Your task to perform on an android device: Find coffee shops on Maps Image 0: 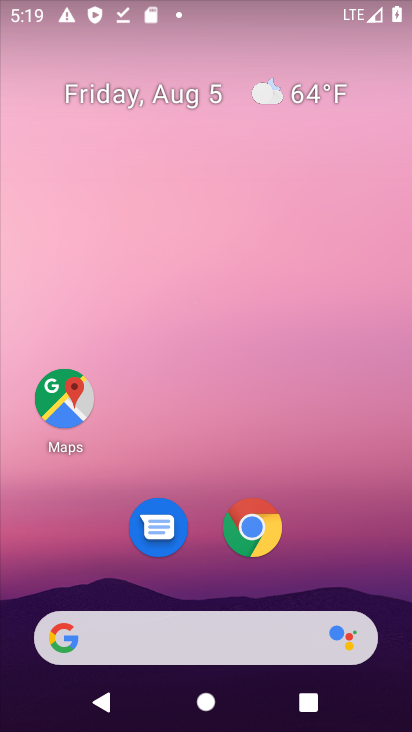
Step 0: drag from (196, 602) to (197, 130)
Your task to perform on an android device: Find coffee shops on Maps Image 1: 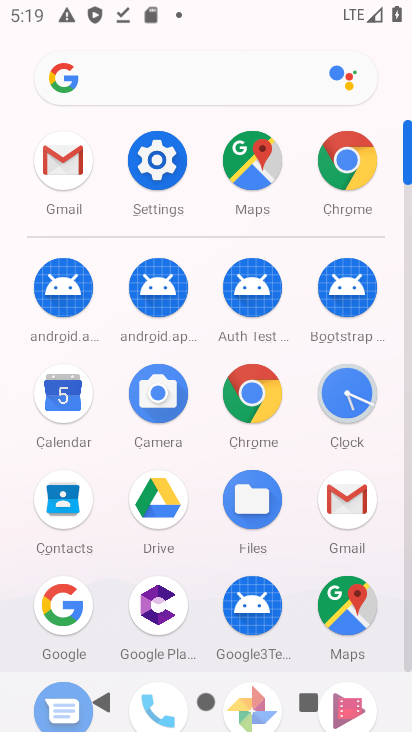
Step 1: click (337, 626)
Your task to perform on an android device: Find coffee shops on Maps Image 2: 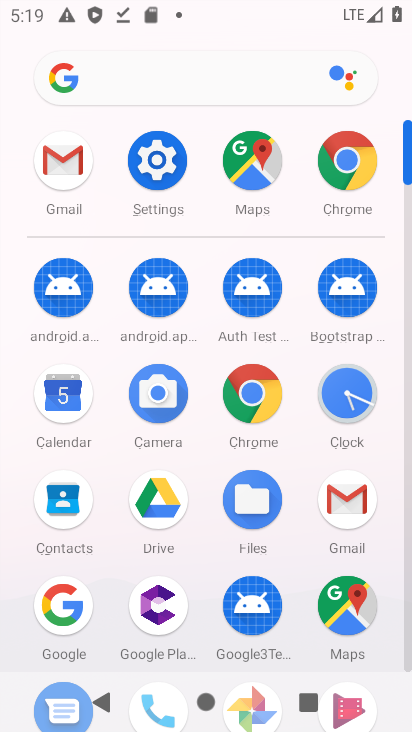
Step 2: click (337, 624)
Your task to perform on an android device: Find coffee shops on Maps Image 3: 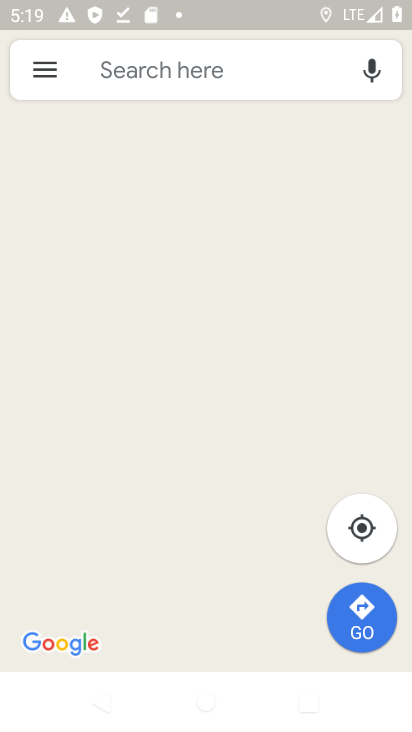
Step 3: click (149, 50)
Your task to perform on an android device: Find coffee shops on Maps Image 4: 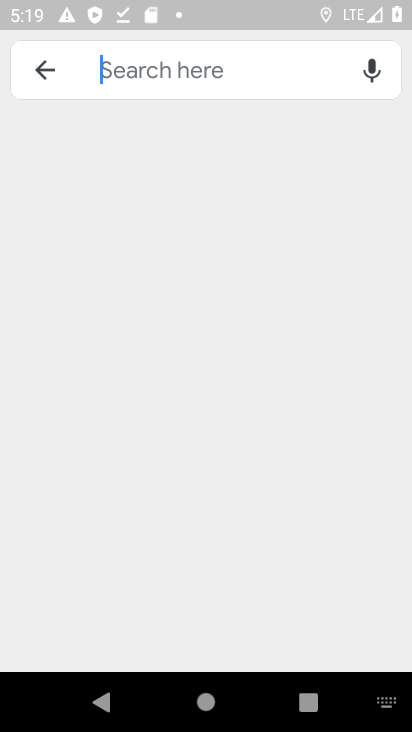
Step 4: click (247, 441)
Your task to perform on an android device: Find coffee shops on Maps Image 5: 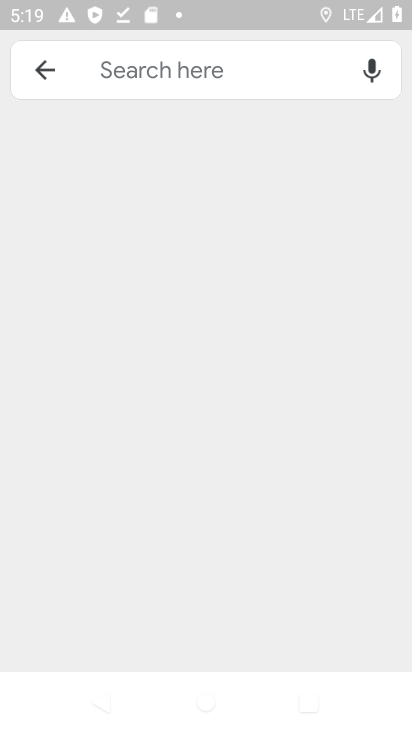
Step 5: click (140, 73)
Your task to perform on an android device: Find coffee shops on Maps Image 6: 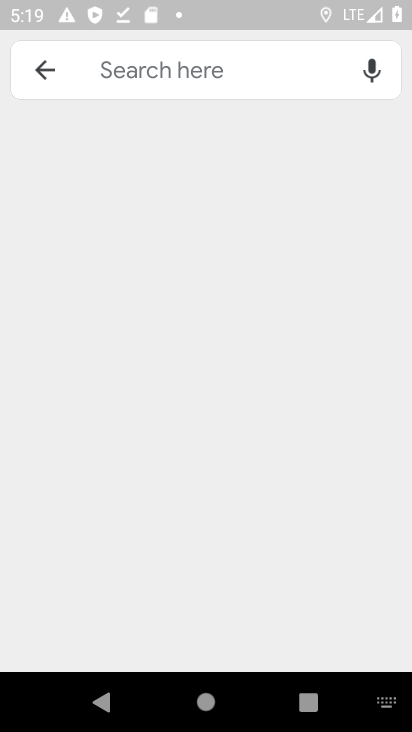
Step 6: type "coffee"
Your task to perform on an android device: Find coffee shops on Maps Image 7: 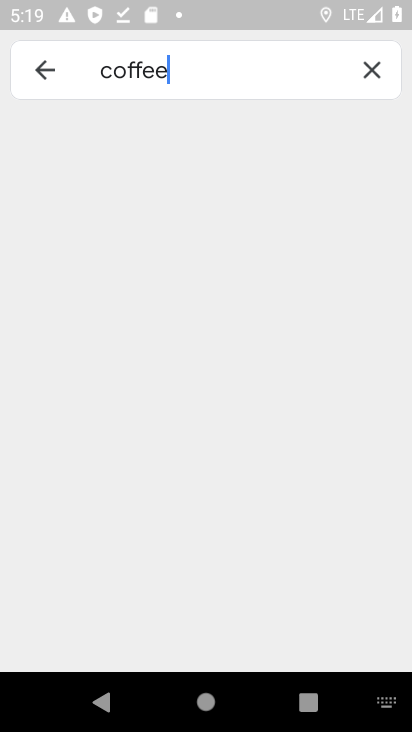
Step 7: type ""
Your task to perform on an android device: Find coffee shops on Maps Image 8: 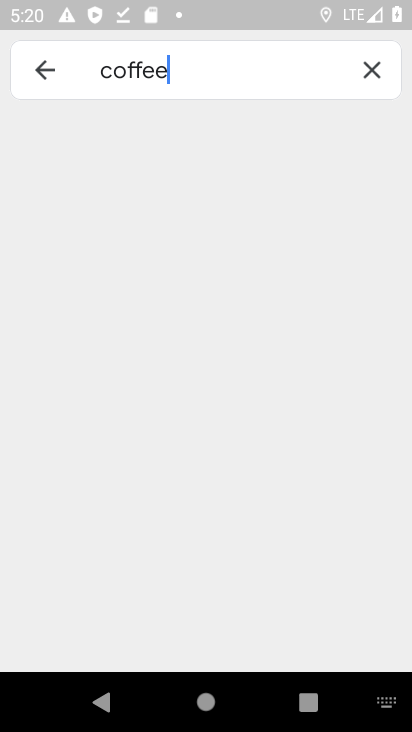
Step 8: click (152, 404)
Your task to perform on an android device: Find coffee shops on Maps Image 9: 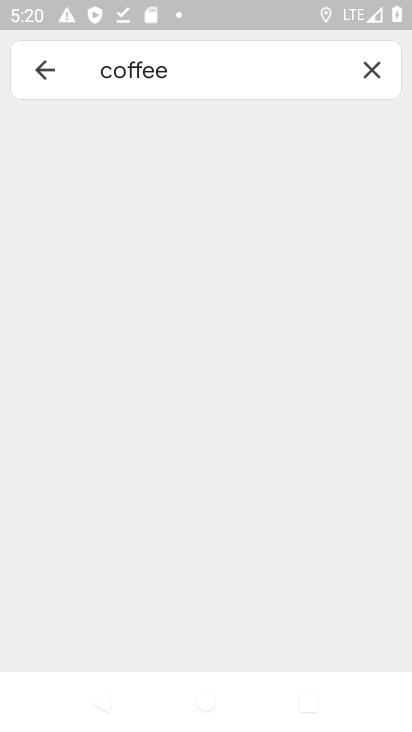
Step 9: click (171, 149)
Your task to perform on an android device: Find coffee shops on Maps Image 10: 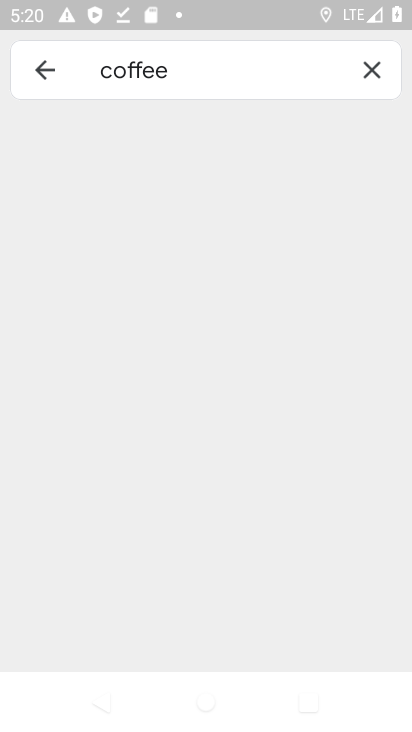
Step 10: click (44, 66)
Your task to perform on an android device: Find coffee shops on Maps Image 11: 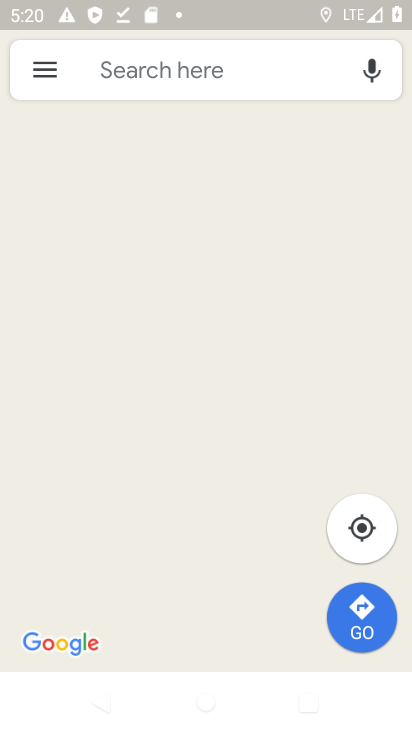
Step 11: click (190, 75)
Your task to perform on an android device: Find coffee shops on Maps Image 12: 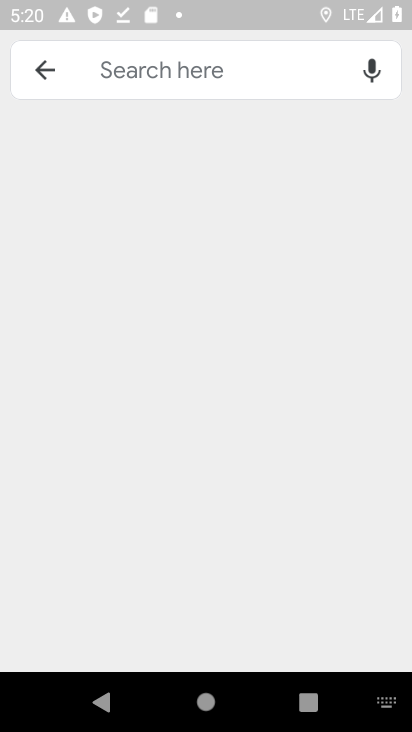
Step 12: type "coffee"
Your task to perform on an android device: Find coffee shops on Maps Image 13: 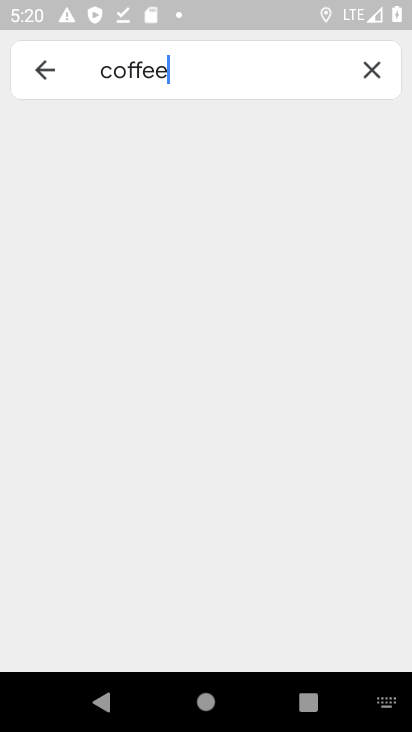
Step 13: type ""
Your task to perform on an android device: Find coffee shops on Maps Image 14: 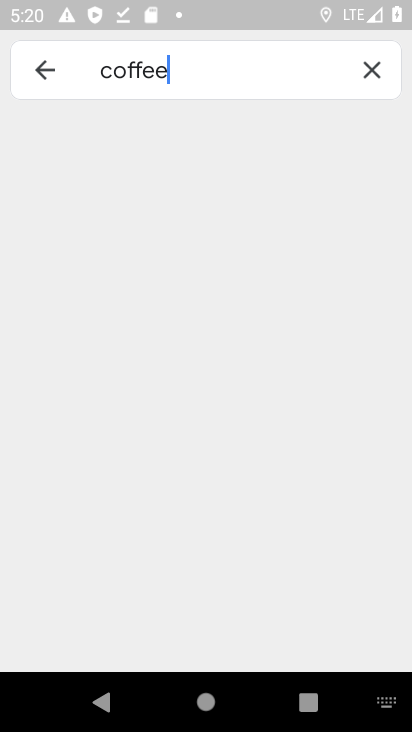
Step 14: click (241, 151)
Your task to perform on an android device: Find coffee shops on Maps Image 15: 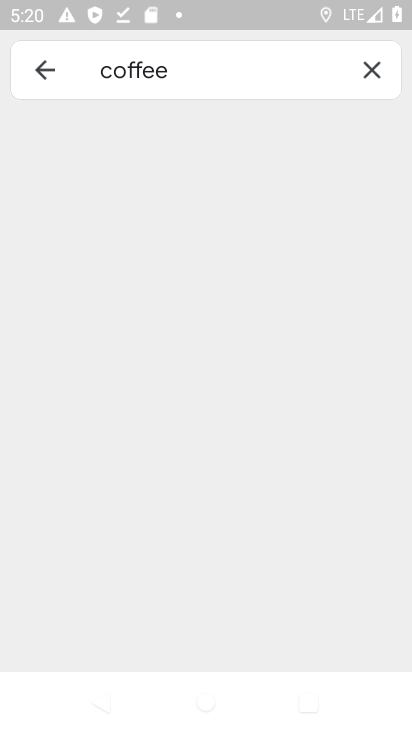
Step 15: task complete